Your task to perform on an android device: snooze an email in the gmail app Image 0: 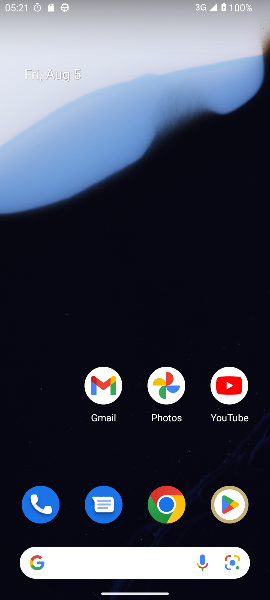
Step 0: click (107, 388)
Your task to perform on an android device: snooze an email in the gmail app Image 1: 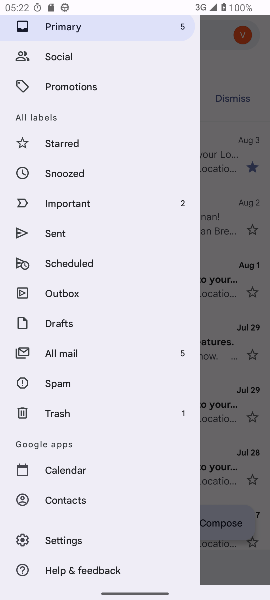
Step 1: click (63, 177)
Your task to perform on an android device: snooze an email in the gmail app Image 2: 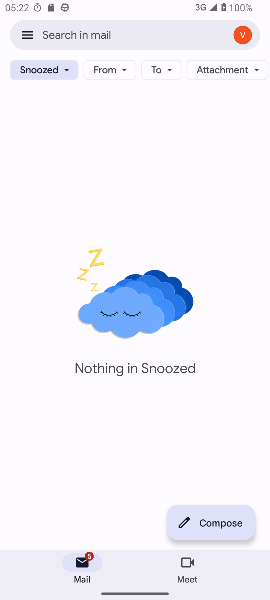
Step 2: task complete